Your task to perform on an android device: Open accessibility settings Image 0: 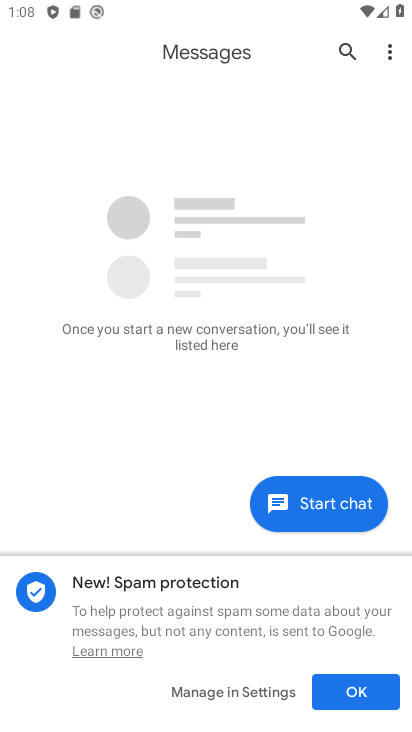
Step 0: press home button
Your task to perform on an android device: Open accessibility settings Image 1: 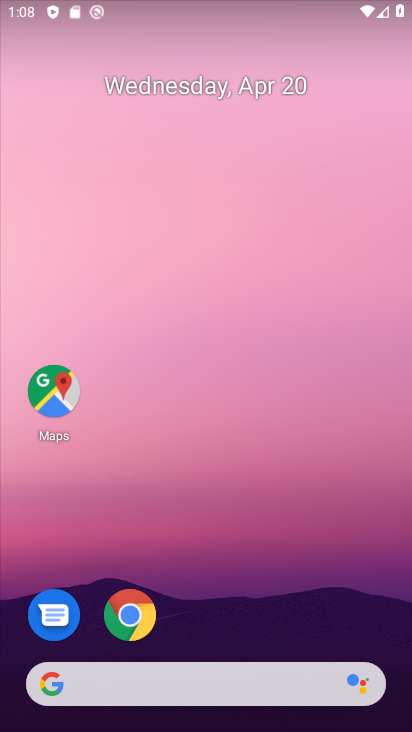
Step 1: drag from (338, 545) to (349, 11)
Your task to perform on an android device: Open accessibility settings Image 2: 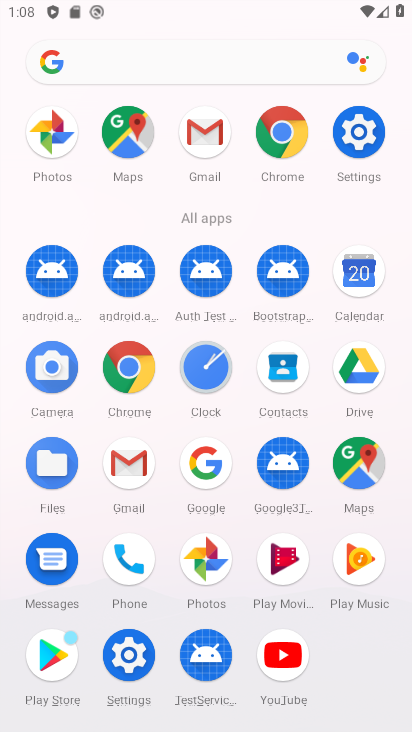
Step 2: click (365, 127)
Your task to perform on an android device: Open accessibility settings Image 3: 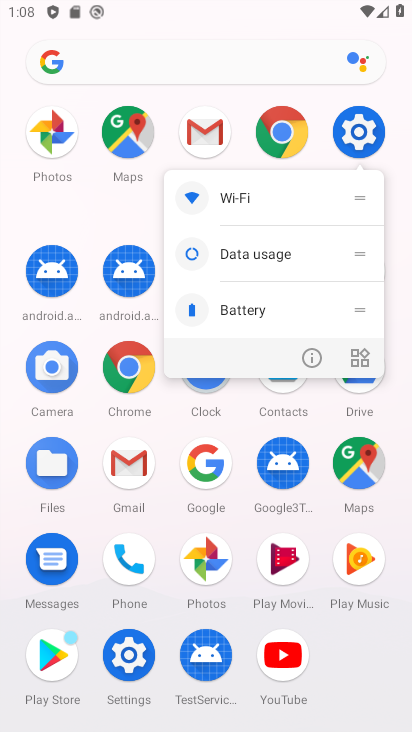
Step 3: click (368, 131)
Your task to perform on an android device: Open accessibility settings Image 4: 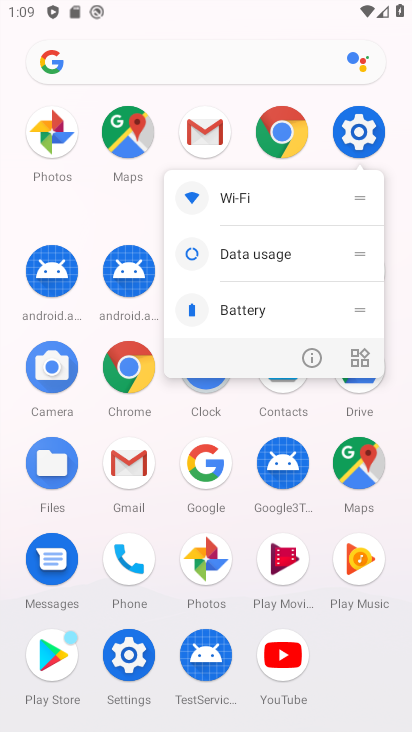
Step 4: click (351, 139)
Your task to perform on an android device: Open accessibility settings Image 5: 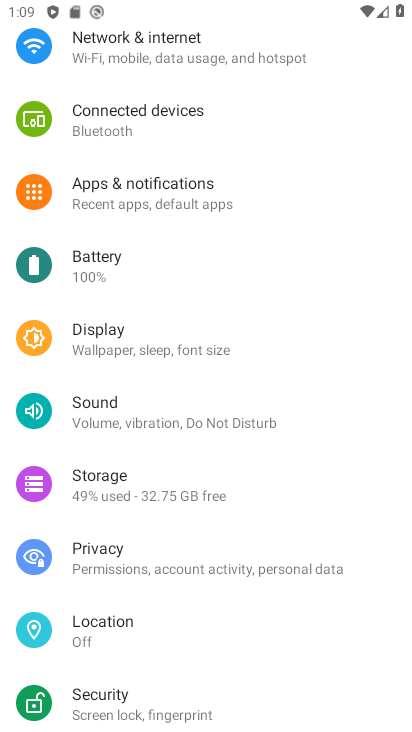
Step 5: drag from (295, 567) to (281, 461)
Your task to perform on an android device: Open accessibility settings Image 6: 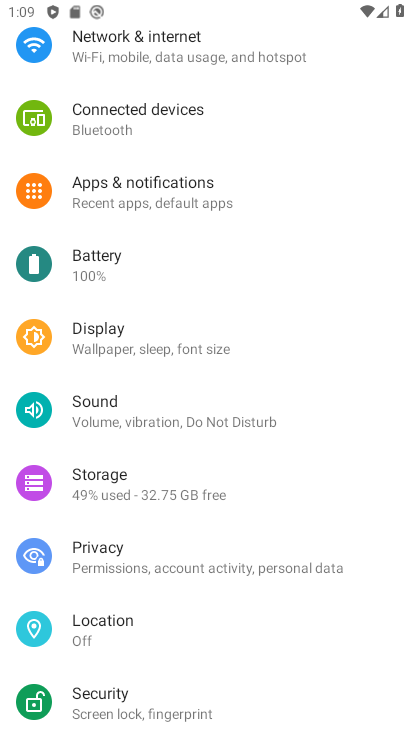
Step 6: drag from (262, 620) to (241, 493)
Your task to perform on an android device: Open accessibility settings Image 7: 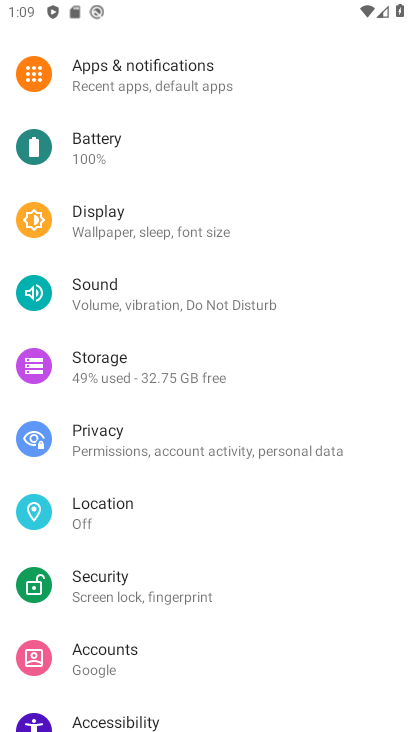
Step 7: drag from (217, 676) to (210, 560)
Your task to perform on an android device: Open accessibility settings Image 8: 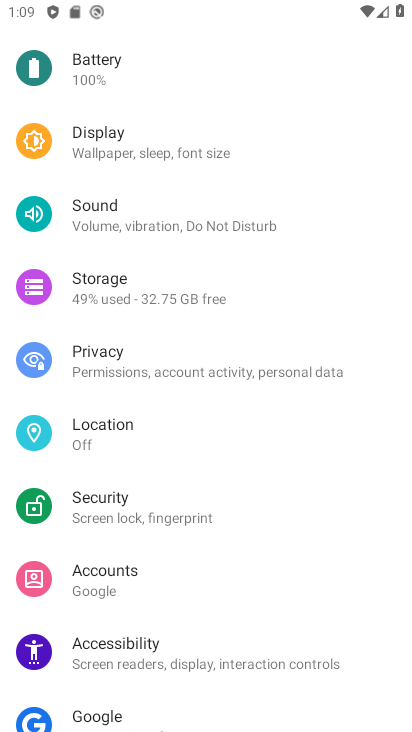
Step 8: click (201, 664)
Your task to perform on an android device: Open accessibility settings Image 9: 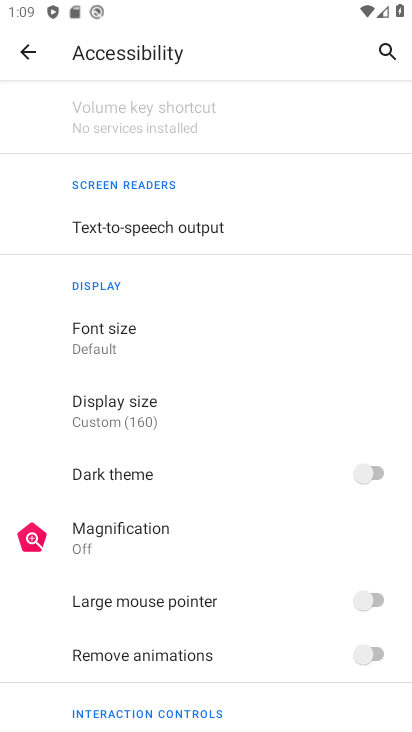
Step 9: task complete